Your task to perform on an android device: Go to battery settings Image 0: 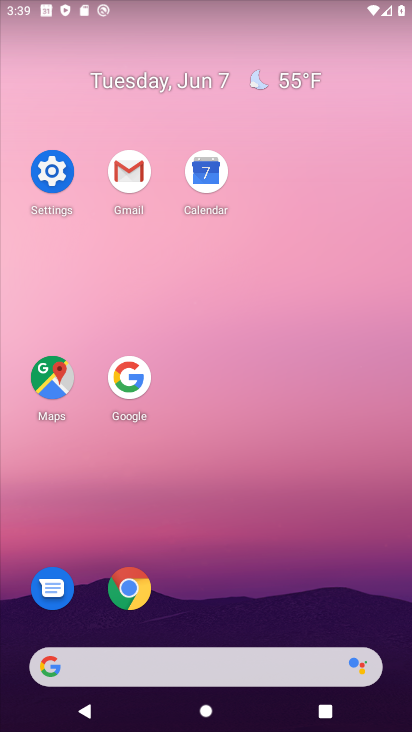
Step 0: click (55, 183)
Your task to perform on an android device: Go to battery settings Image 1: 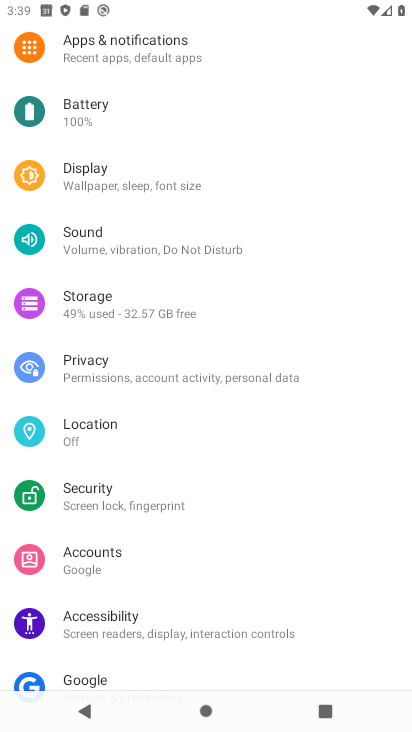
Step 1: click (176, 124)
Your task to perform on an android device: Go to battery settings Image 2: 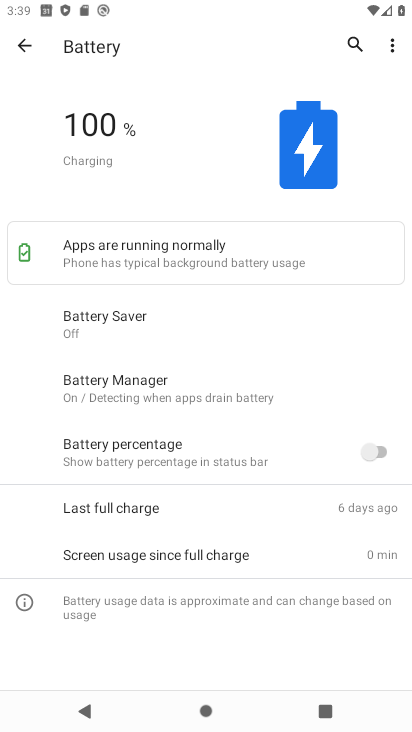
Step 2: task complete